Your task to perform on an android device: change the clock style Image 0: 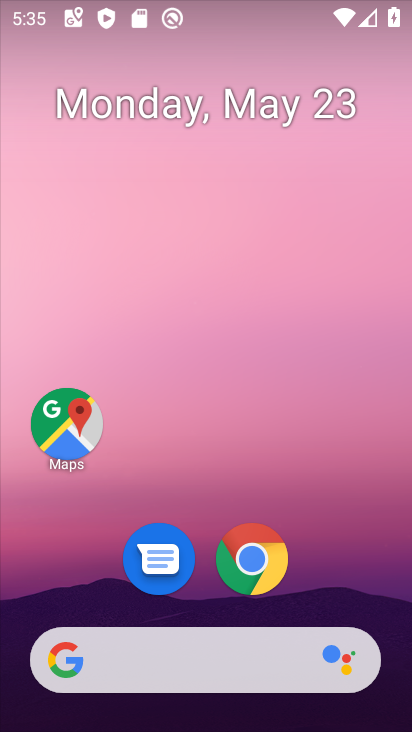
Step 0: drag from (335, 619) to (328, 8)
Your task to perform on an android device: change the clock style Image 1: 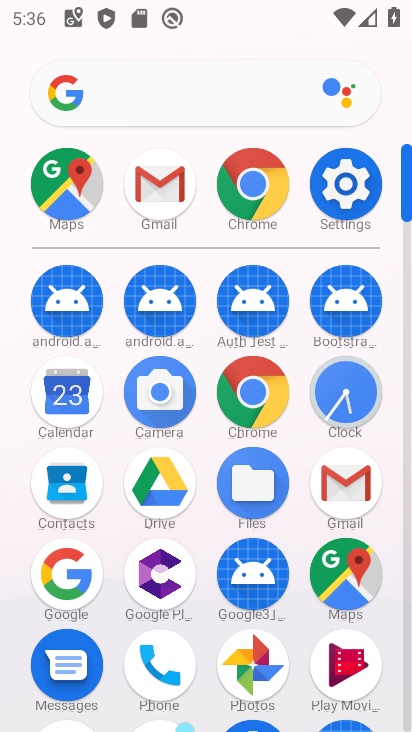
Step 1: click (349, 385)
Your task to perform on an android device: change the clock style Image 2: 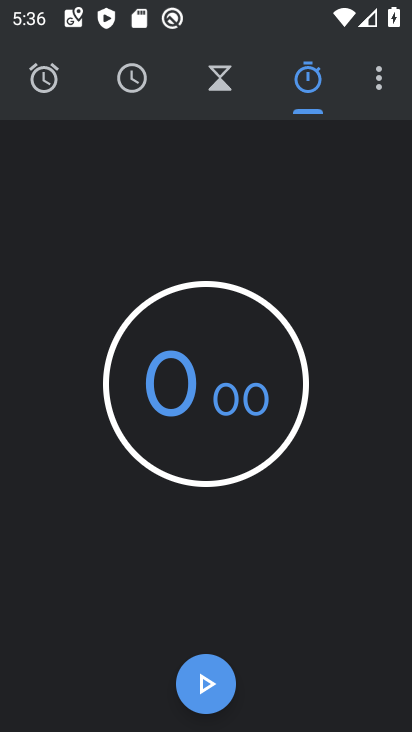
Step 2: click (387, 82)
Your task to perform on an android device: change the clock style Image 3: 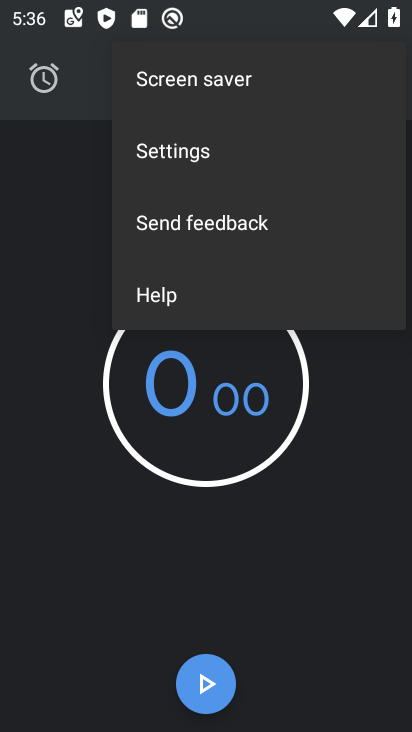
Step 3: click (294, 138)
Your task to perform on an android device: change the clock style Image 4: 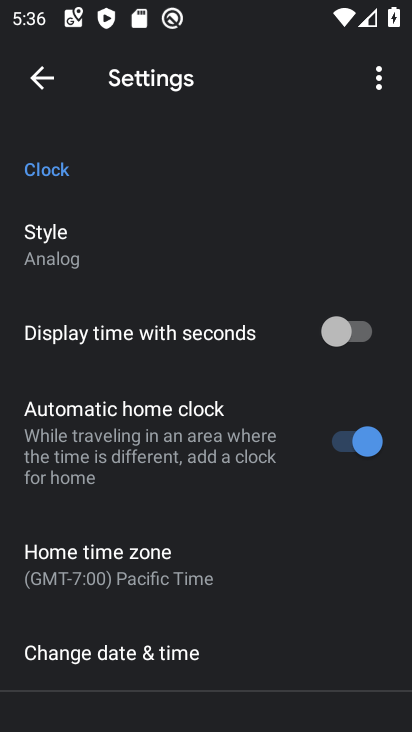
Step 4: click (152, 245)
Your task to perform on an android device: change the clock style Image 5: 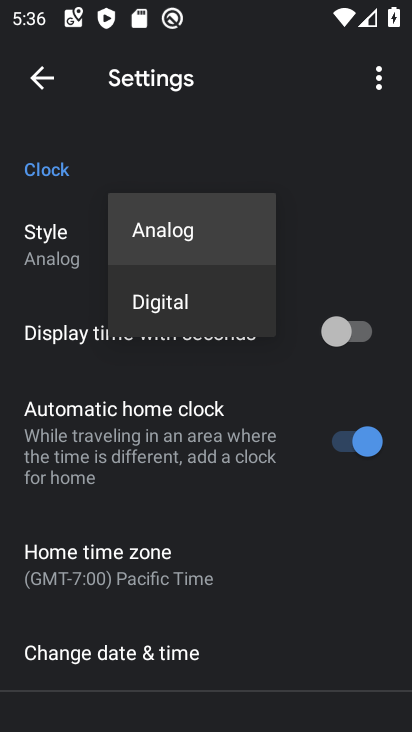
Step 5: click (163, 283)
Your task to perform on an android device: change the clock style Image 6: 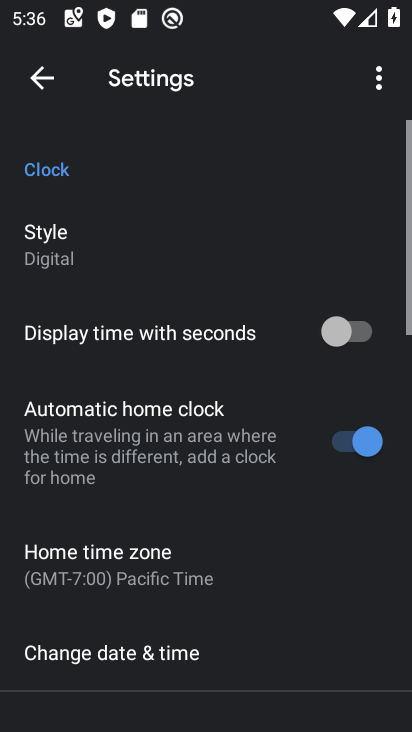
Step 6: task complete